Your task to perform on an android device: Go to battery settings Image 0: 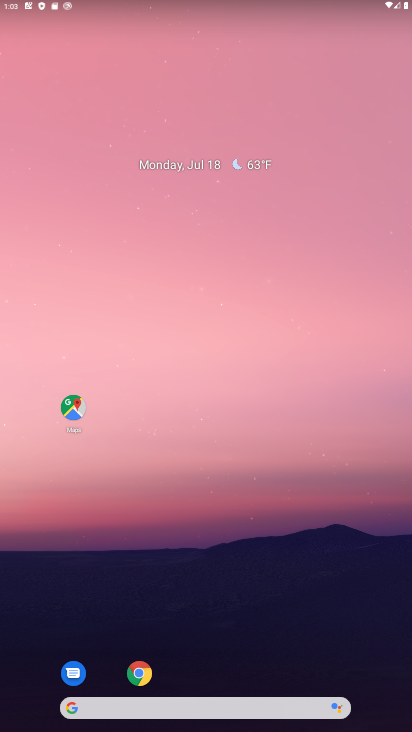
Step 0: drag from (212, 650) to (209, 27)
Your task to perform on an android device: Go to battery settings Image 1: 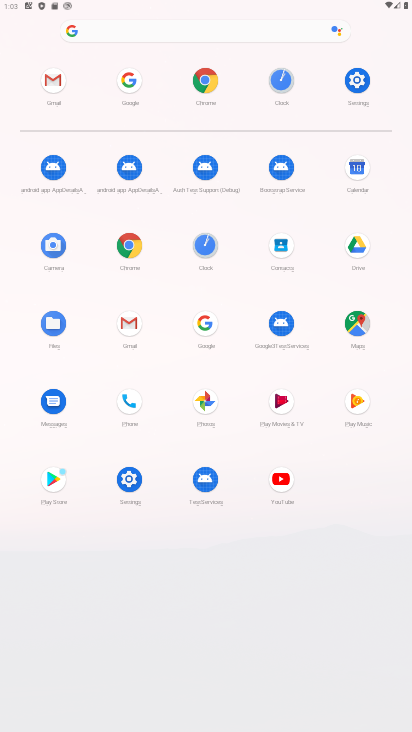
Step 1: click (348, 77)
Your task to perform on an android device: Go to battery settings Image 2: 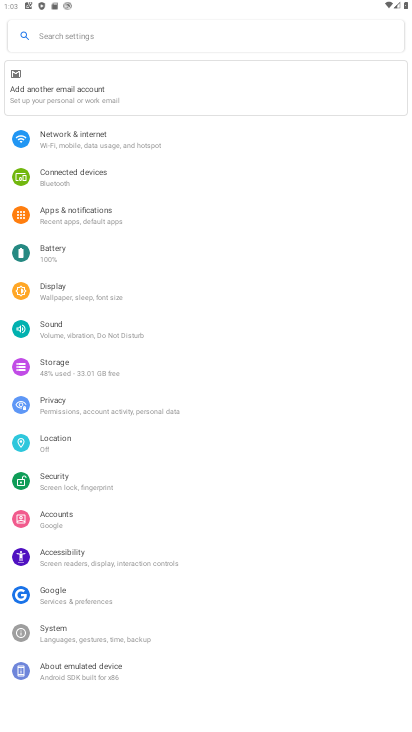
Step 2: click (67, 248)
Your task to perform on an android device: Go to battery settings Image 3: 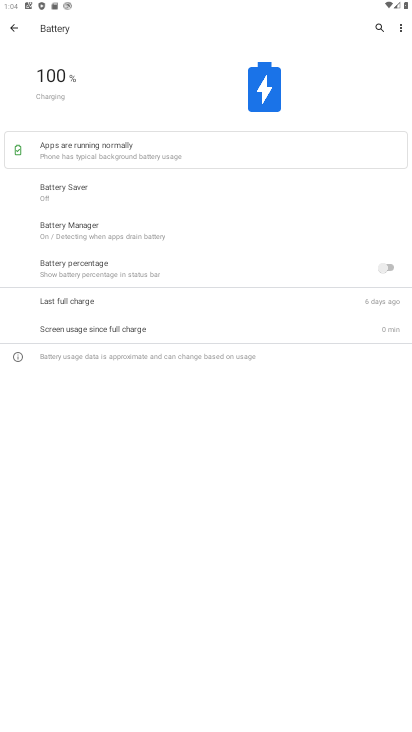
Step 3: task complete